Your task to perform on an android device: show emergency info Image 0: 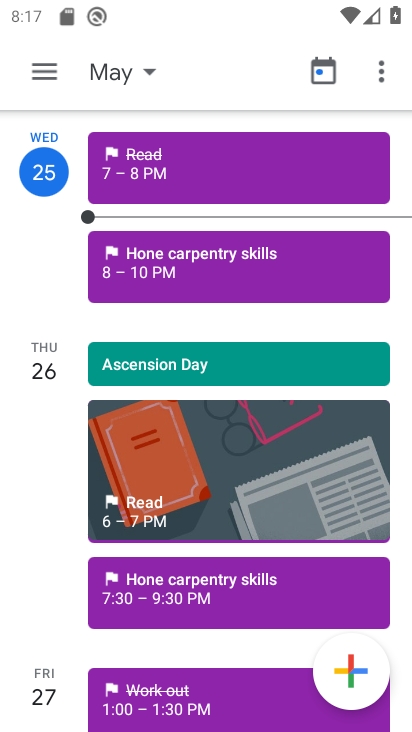
Step 0: press home button
Your task to perform on an android device: show emergency info Image 1: 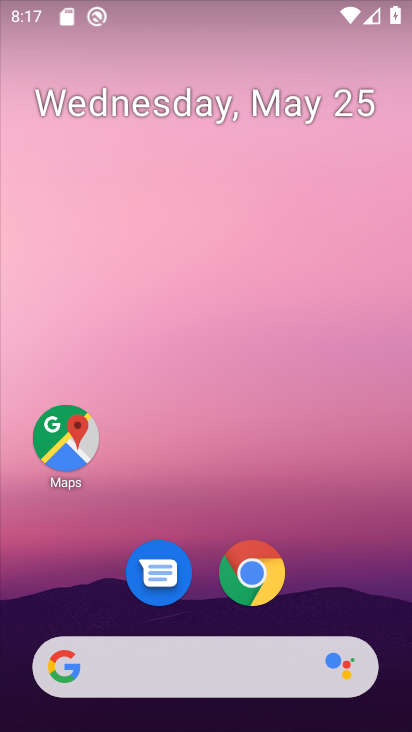
Step 1: drag from (405, 716) to (338, 27)
Your task to perform on an android device: show emergency info Image 2: 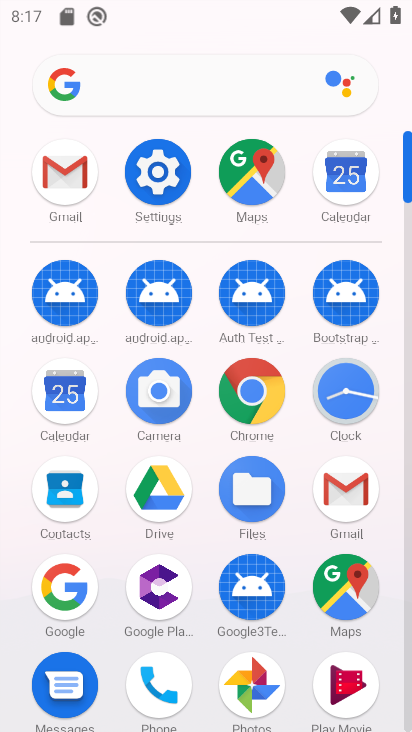
Step 2: click (167, 186)
Your task to perform on an android device: show emergency info Image 3: 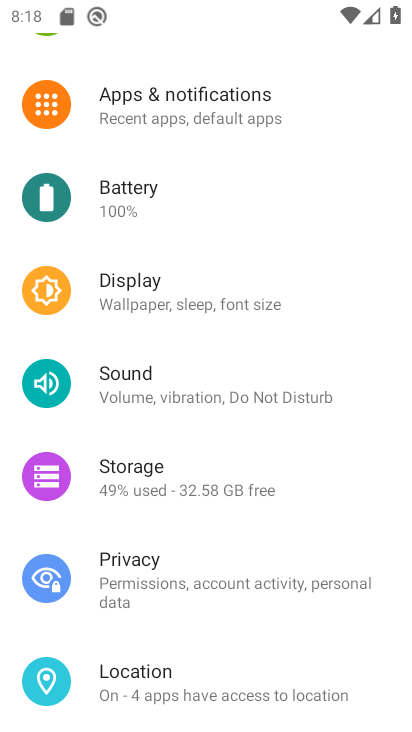
Step 3: drag from (292, 702) to (266, 263)
Your task to perform on an android device: show emergency info Image 4: 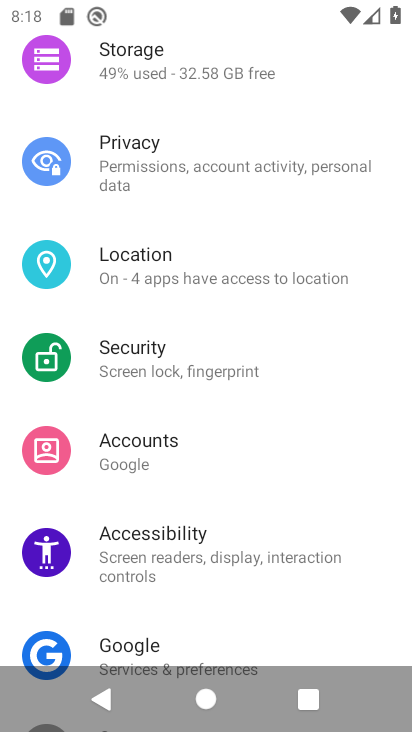
Step 4: drag from (240, 613) to (227, 371)
Your task to perform on an android device: show emergency info Image 5: 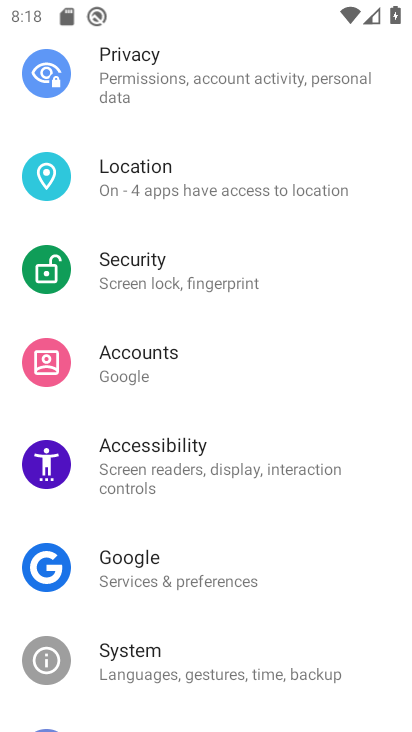
Step 5: drag from (243, 654) to (211, 329)
Your task to perform on an android device: show emergency info Image 6: 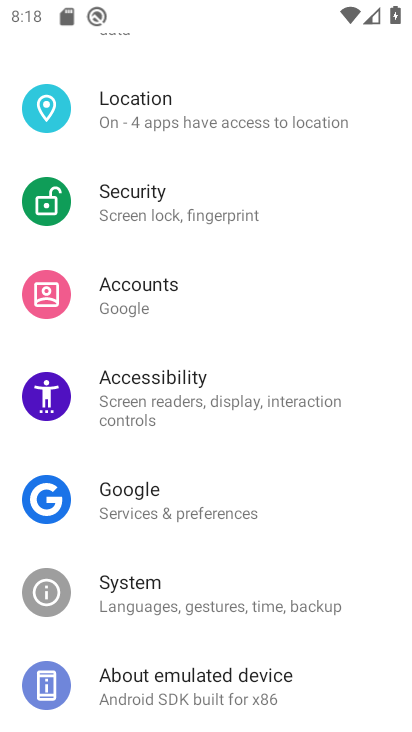
Step 6: click (149, 686)
Your task to perform on an android device: show emergency info Image 7: 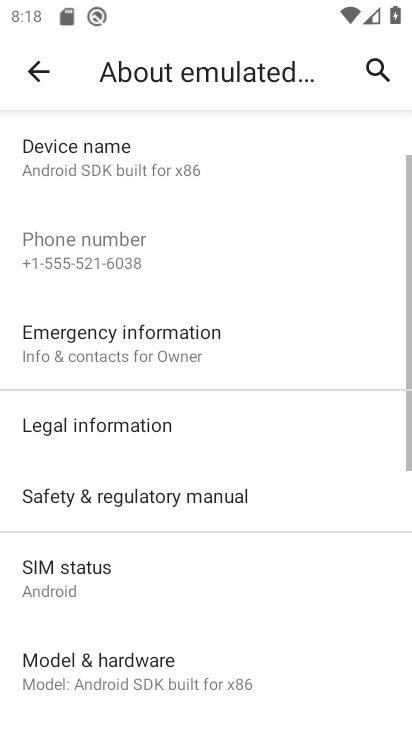
Step 7: drag from (300, 651) to (270, 324)
Your task to perform on an android device: show emergency info Image 8: 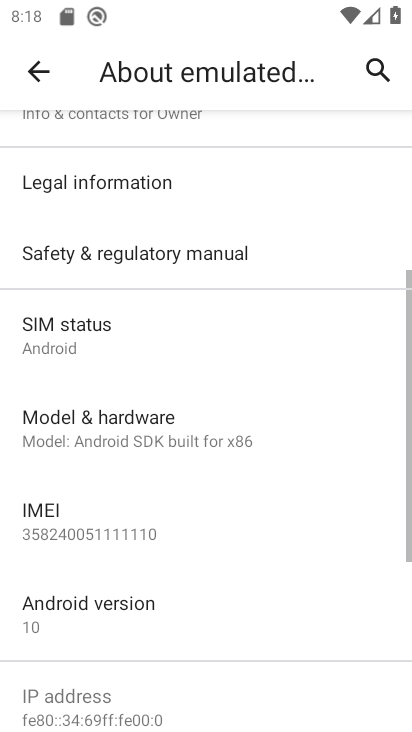
Step 8: drag from (258, 707) to (258, 400)
Your task to perform on an android device: show emergency info Image 9: 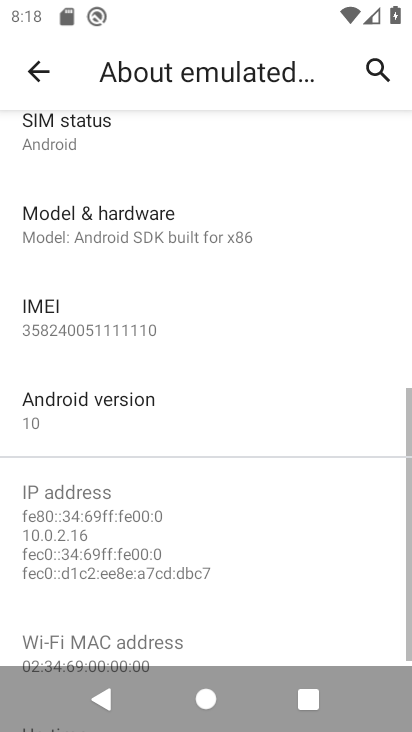
Step 9: drag from (257, 619) to (260, 367)
Your task to perform on an android device: show emergency info Image 10: 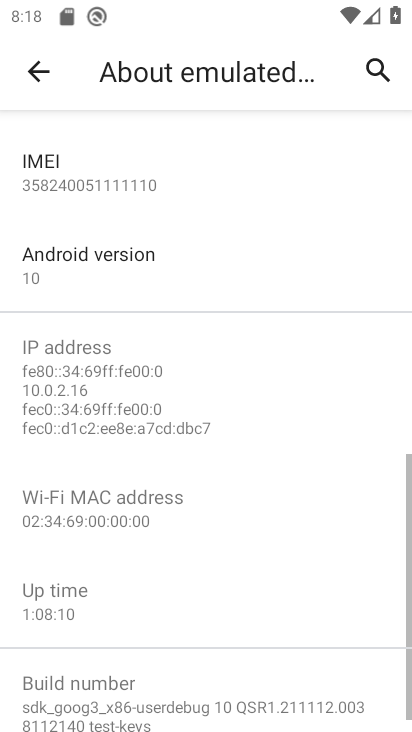
Step 10: drag from (253, 276) to (228, 631)
Your task to perform on an android device: show emergency info Image 11: 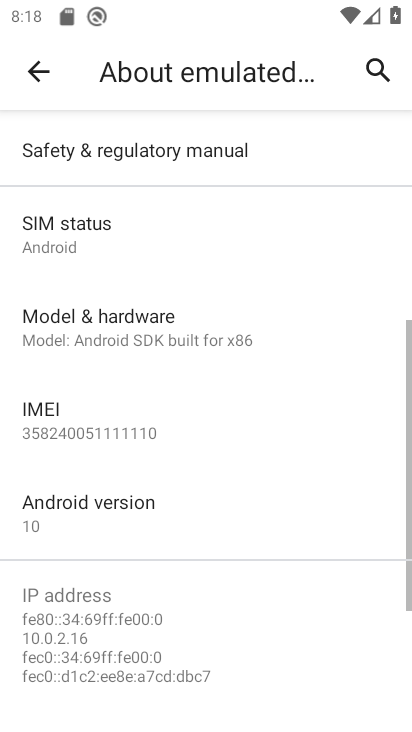
Step 11: drag from (267, 212) to (279, 559)
Your task to perform on an android device: show emergency info Image 12: 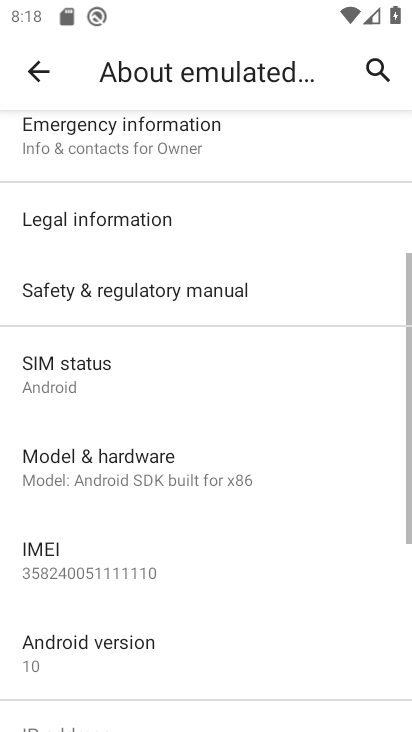
Step 12: drag from (270, 227) to (280, 558)
Your task to perform on an android device: show emergency info Image 13: 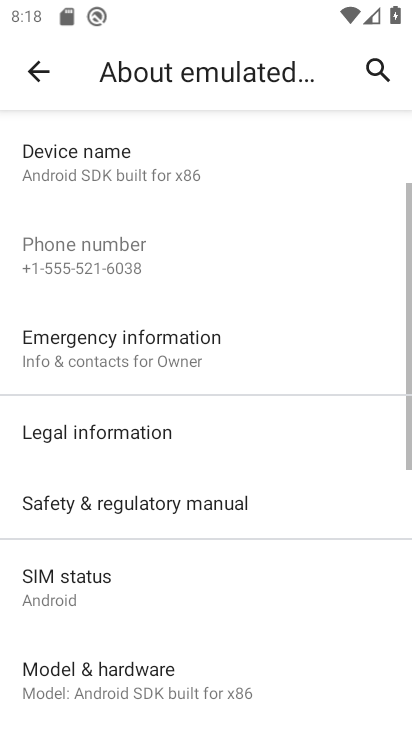
Step 13: click (86, 343)
Your task to perform on an android device: show emergency info Image 14: 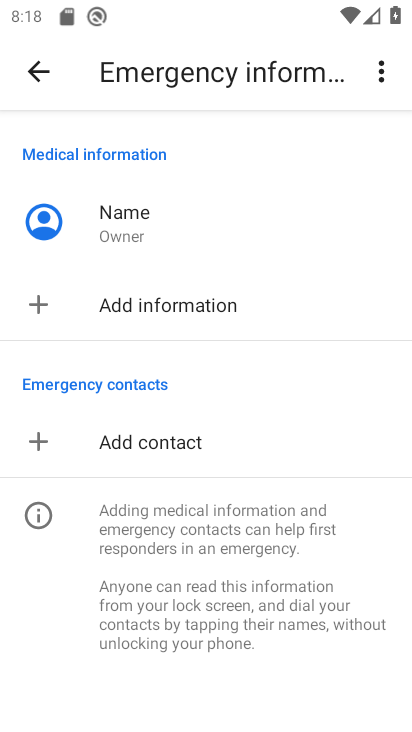
Step 14: task complete